Your task to perform on an android device: turn vacation reply on in the gmail app Image 0: 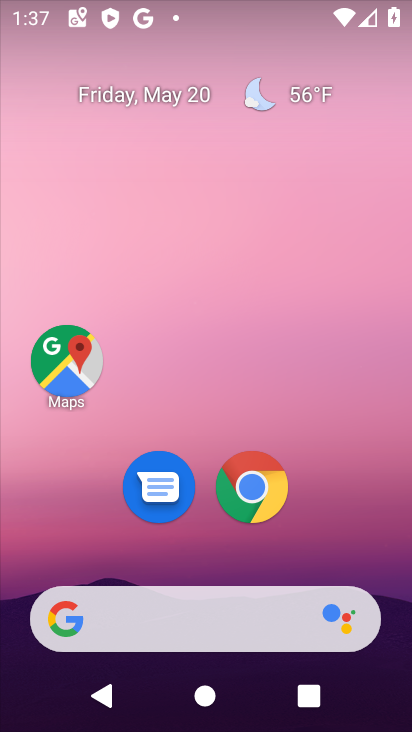
Step 0: drag from (209, 558) to (239, 109)
Your task to perform on an android device: turn vacation reply on in the gmail app Image 1: 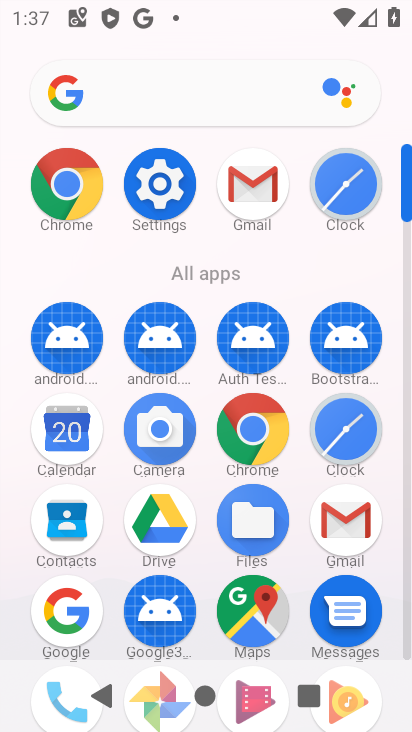
Step 1: click (249, 175)
Your task to perform on an android device: turn vacation reply on in the gmail app Image 2: 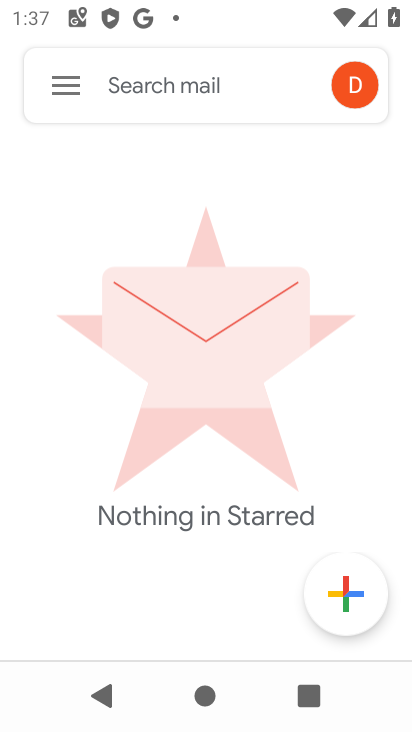
Step 2: click (67, 85)
Your task to perform on an android device: turn vacation reply on in the gmail app Image 3: 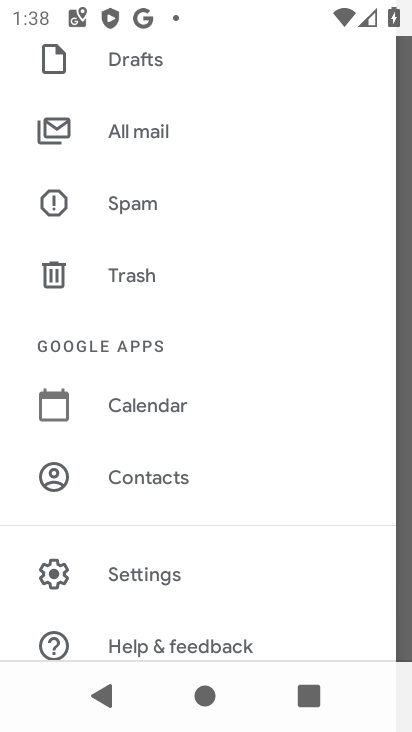
Step 3: click (193, 569)
Your task to perform on an android device: turn vacation reply on in the gmail app Image 4: 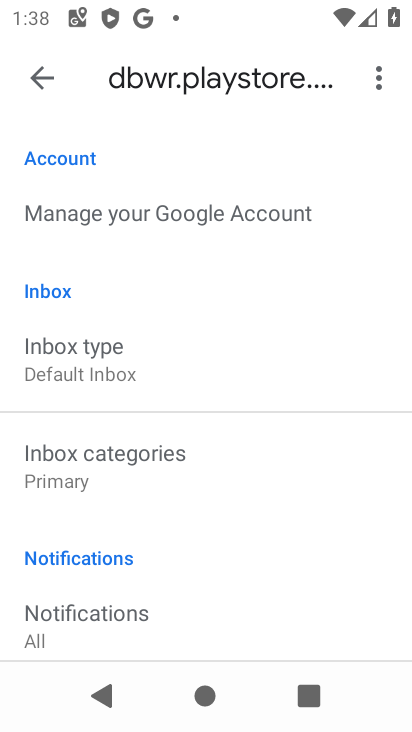
Step 4: drag from (184, 617) to (227, 167)
Your task to perform on an android device: turn vacation reply on in the gmail app Image 5: 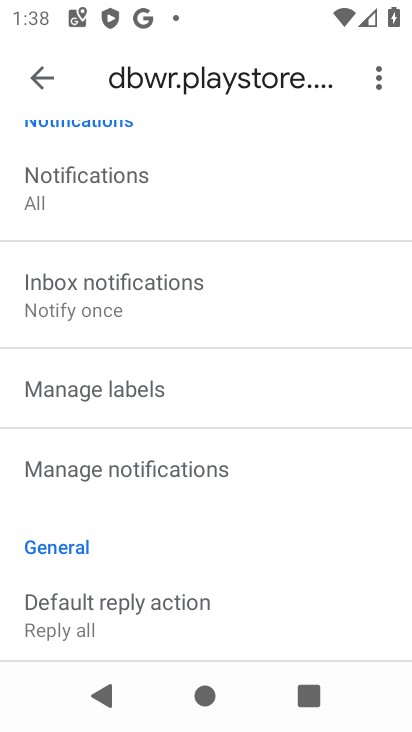
Step 5: drag from (176, 511) to (201, 54)
Your task to perform on an android device: turn vacation reply on in the gmail app Image 6: 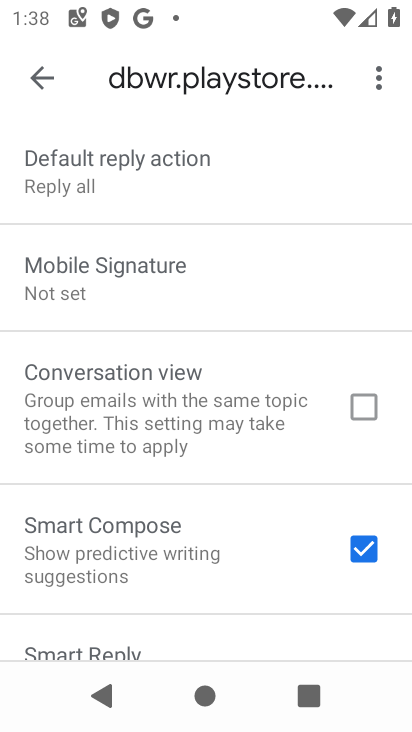
Step 6: drag from (178, 579) to (222, 180)
Your task to perform on an android device: turn vacation reply on in the gmail app Image 7: 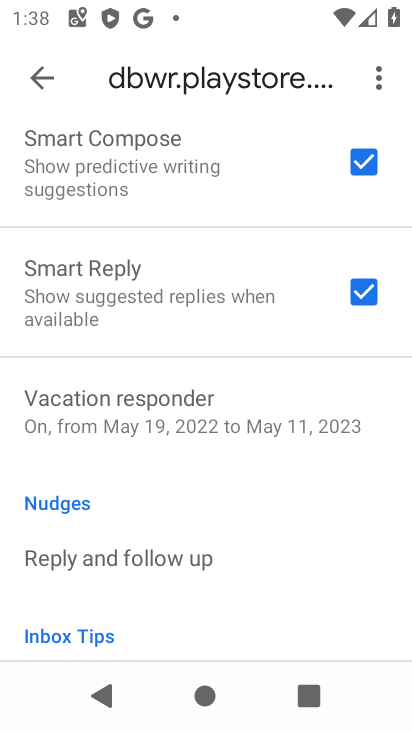
Step 7: click (221, 408)
Your task to perform on an android device: turn vacation reply on in the gmail app Image 8: 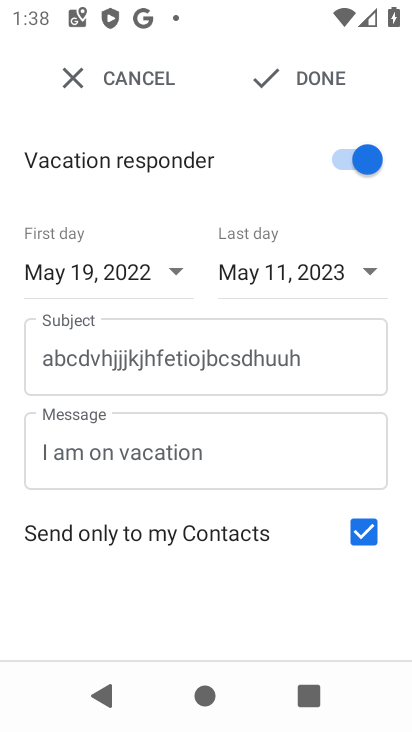
Step 8: task complete